Your task to perform on an android device: Turn on the flashlight Image 0: 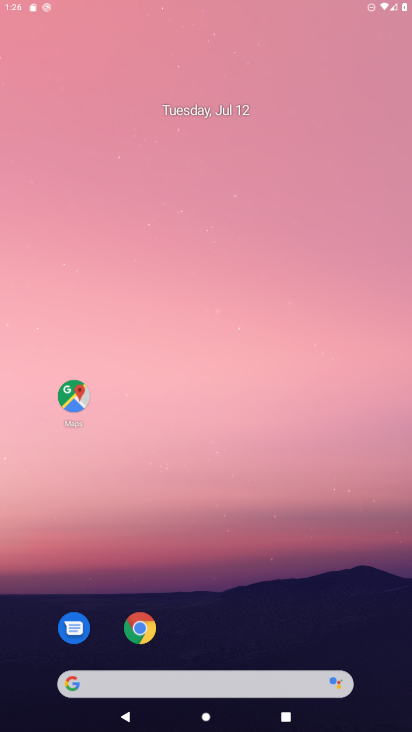
Step 0: press home button
Your task to perform on an android device: Turn on the flashlight Image 1: 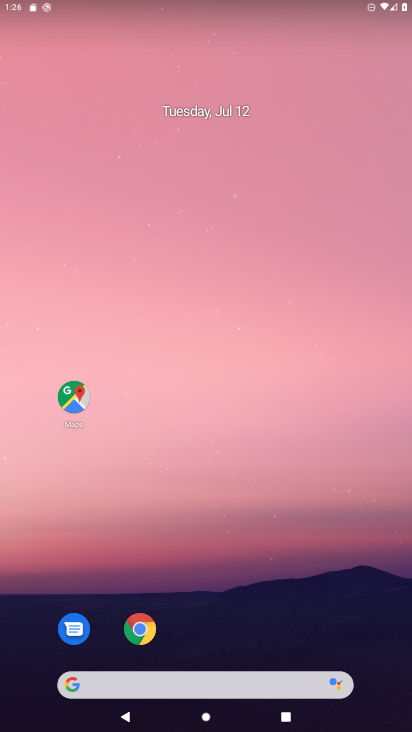
Step 1: drag from (212, 643) to (187, 14)
Your task to perform on an android device: Turn on the flashlight Image 2: 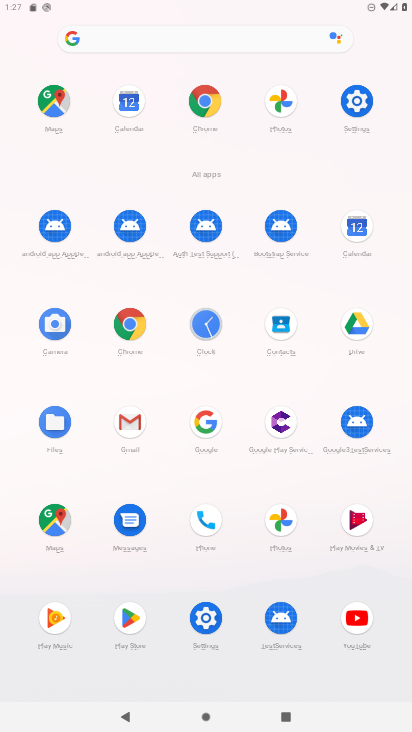
Step 2: click (361, 97)
Your task to perform on an android device: Turn on the flashlight Image 3: 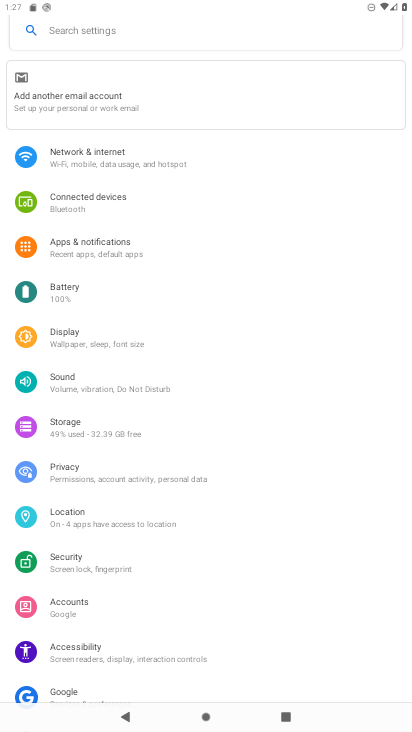
Step 3: click (100, 22)
Your task to perform on an android device: Turn on the flashlight Image 4: 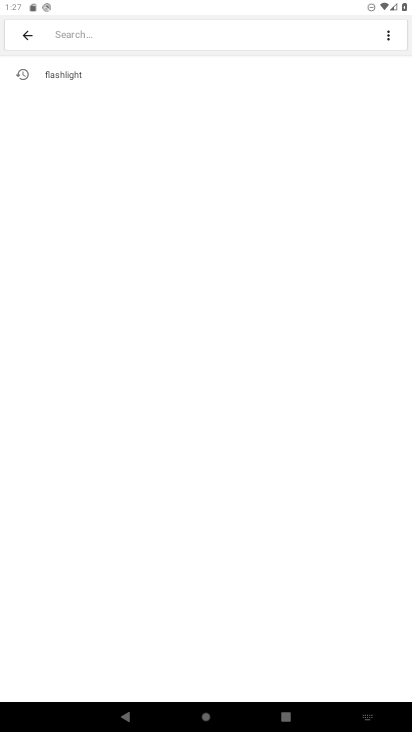
Step 4: type "flash"
Your task to perform on an android device: Turn on the flashlight Image 5: 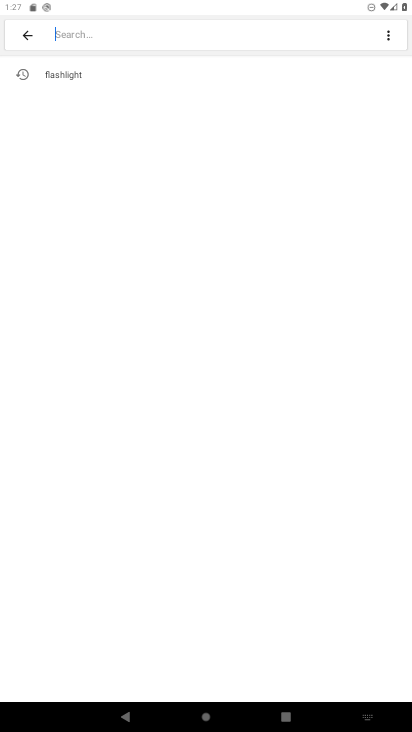
Step 5: click (74, 60)
Your task to perform on an android device: Turn on the flashlight Image 6: 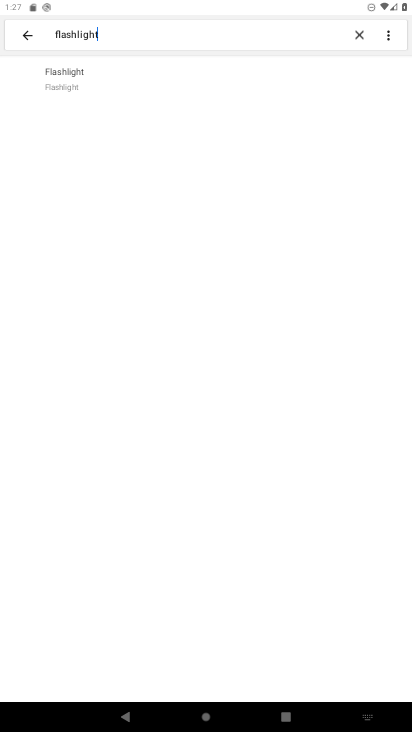
Step 6: click (93, 73)
Your task to perform on an android device: Turn on the flashlight Image 7: 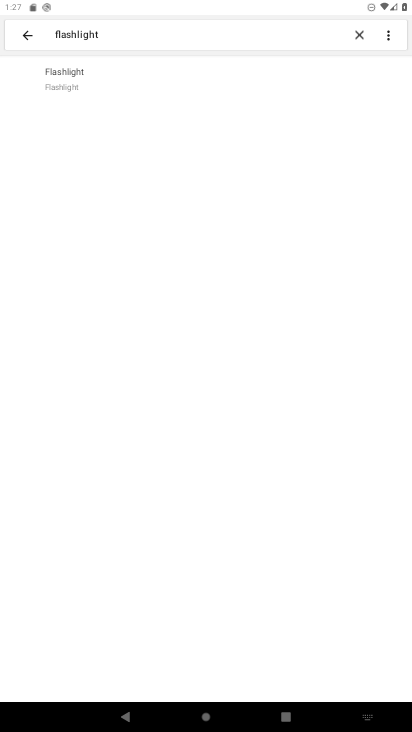
Step 7: task complete